Your task to perform on an android device: Open a new Chrome window Image 0: 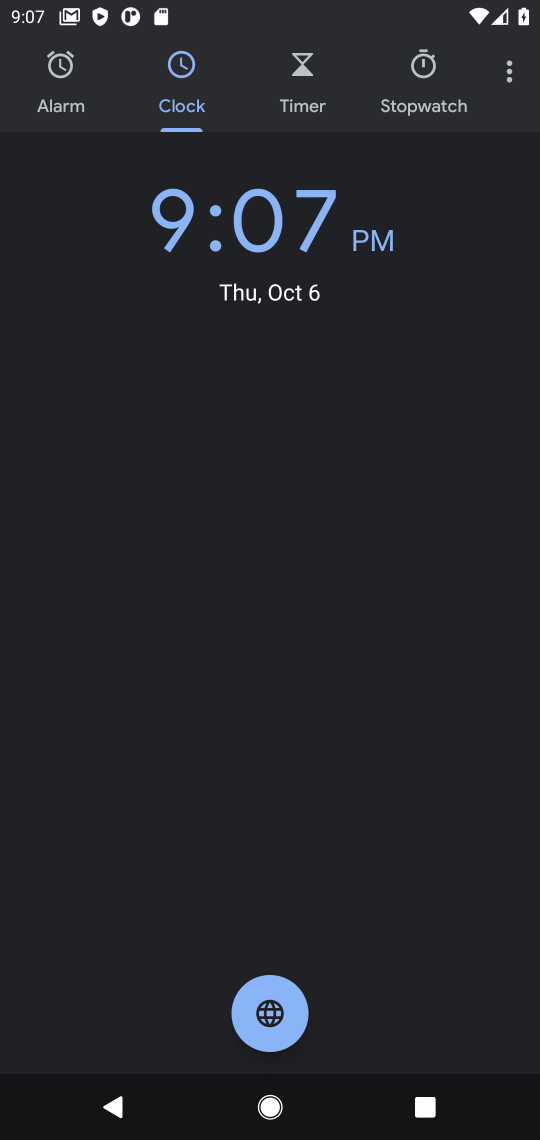
Step 0: press home button
Your task to perform on an android device: Open a new Chrome window Image 1: 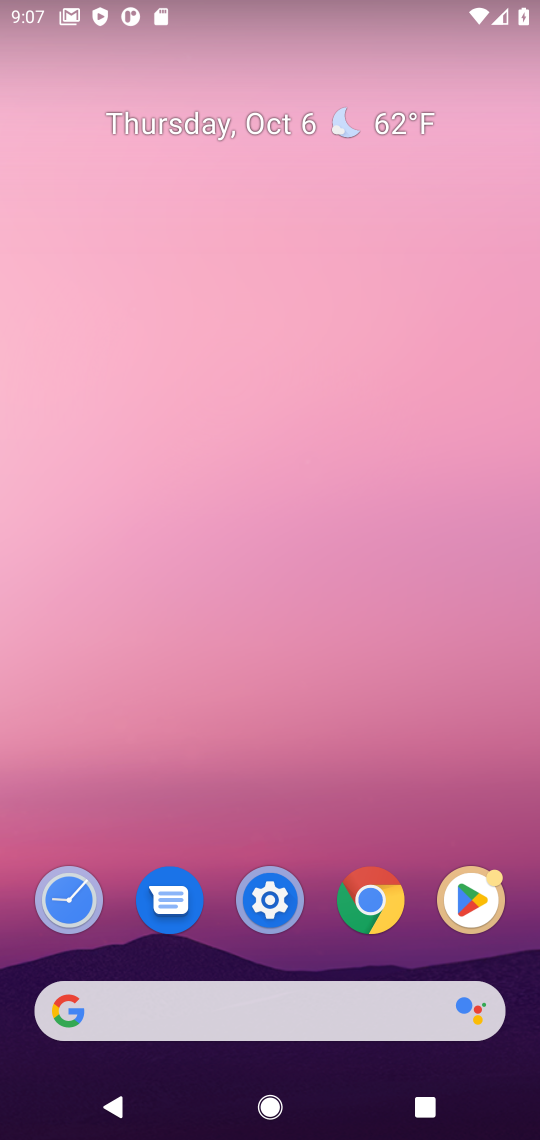
Step 1: drag from (110, 782) to (115, 7)
Your task to perform on an android device: Open a new Chrome window Image 2: 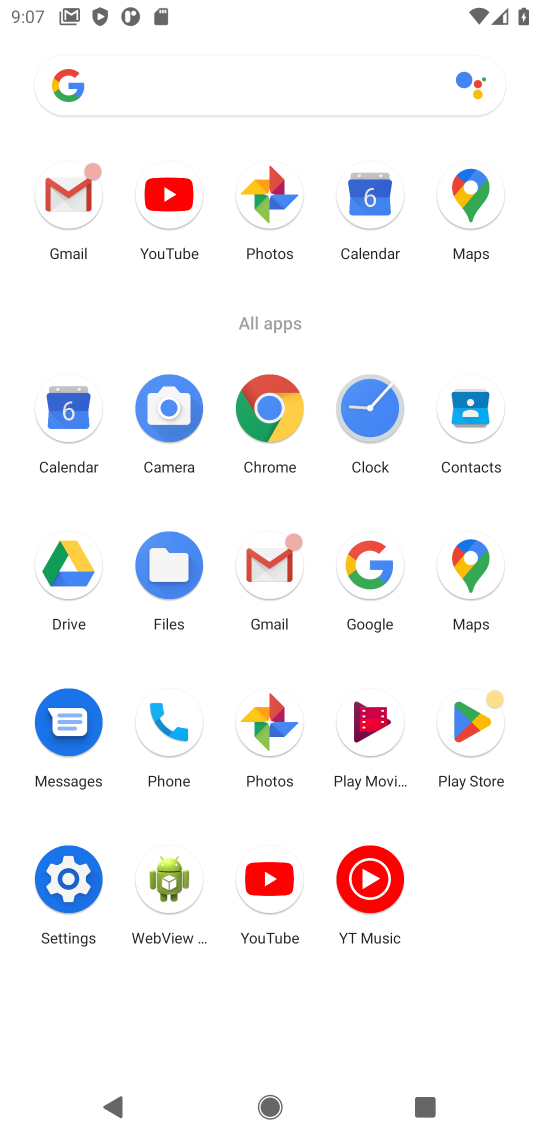
Step 2: click (269, 417)
Your task to perform on an android device: Open a new Chrome window Image 3: 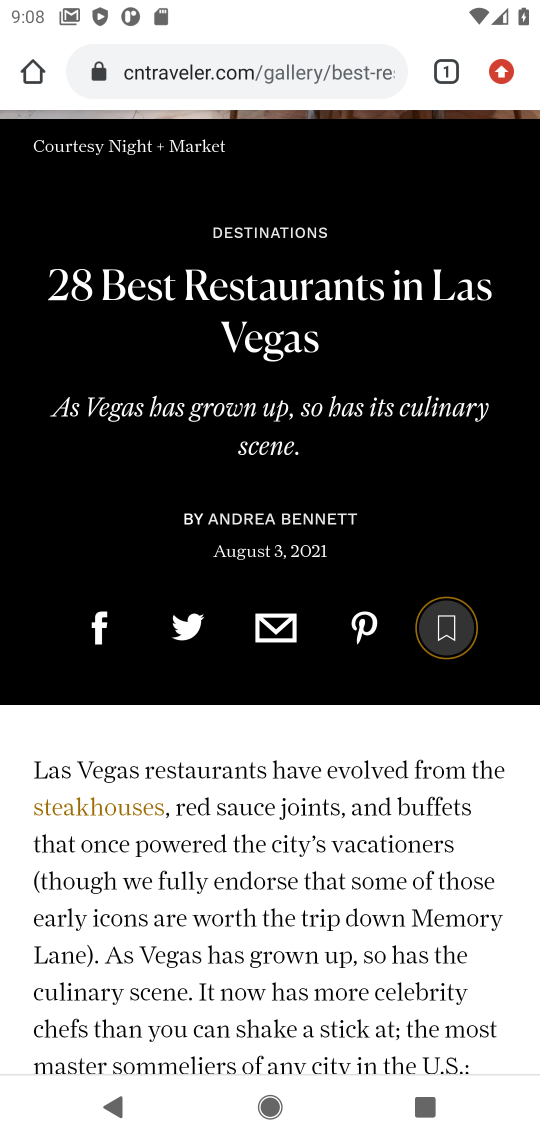
Step 3: click (505, 69)
Your task to perform on an android device: Open a new Chrome window Image 4: 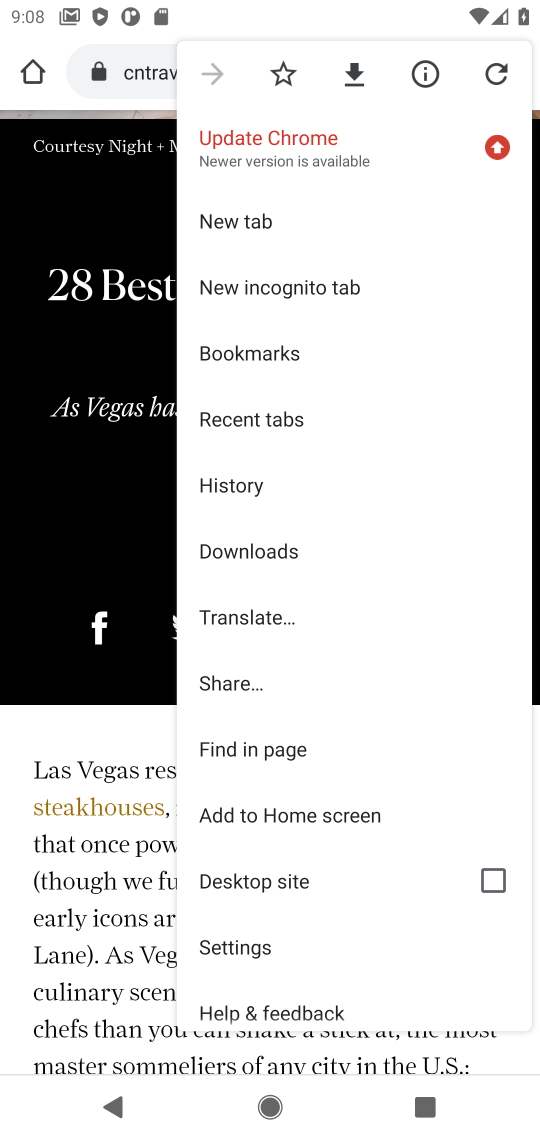
Step 4: click (247, 228)
Your task to perform on an android device: Open a new Chrome window Image 5: 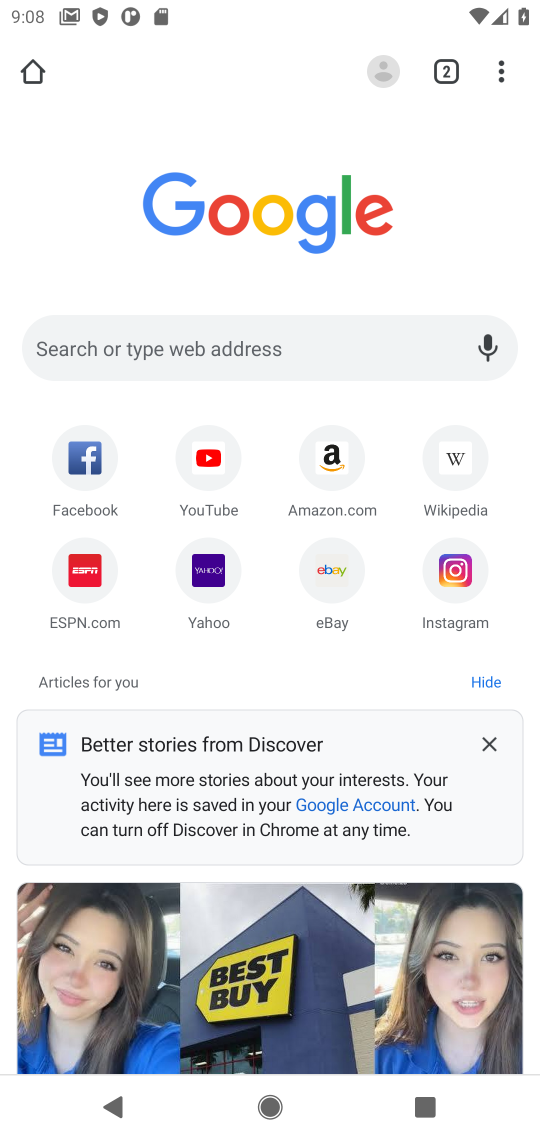
Step 5: task complete